Your task to perform on an android device: make emails show in primary in the gmail app Image 0: 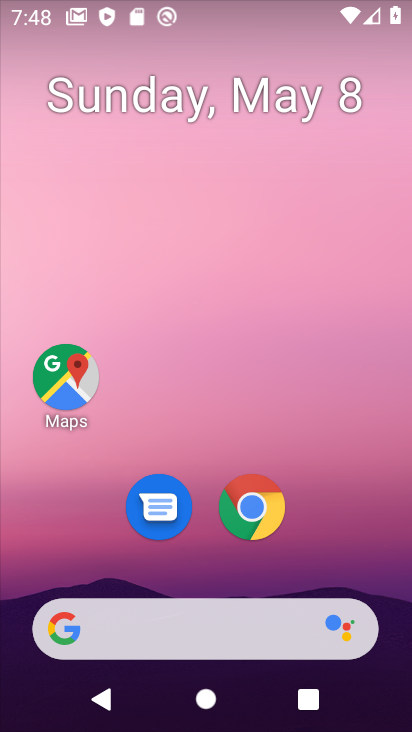
Step 0: drag from (267, 642) to (321, 50)
Your task to perform on an android device: make emails show in primary in the gmail app Image 1: 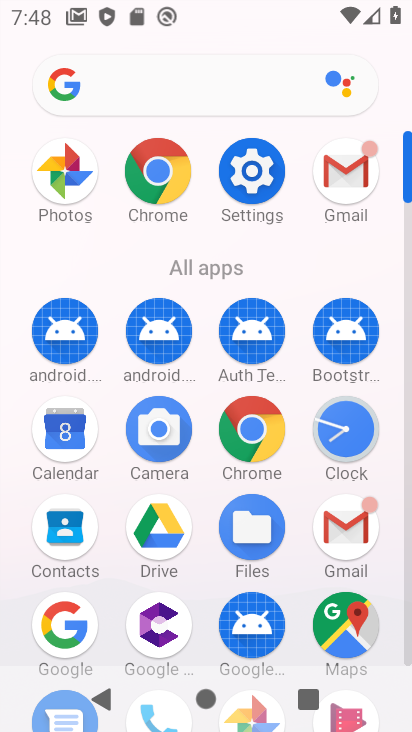
Step 1: click (349, 514)
Your task to perform on an android device: make emails show in primary in the gmail app Image 2: 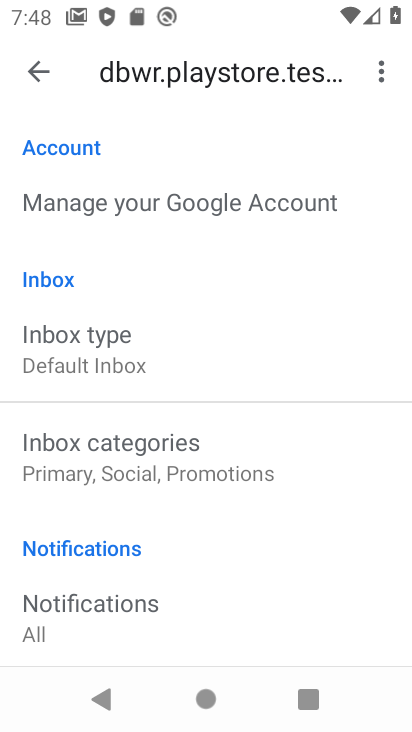
Step 2: click (67, 350)
Your task to perform on an android device: make emails show in primary in the gmail app Image 3: 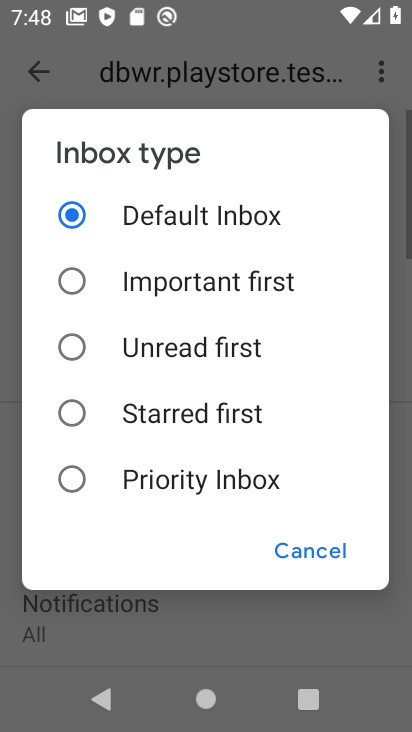
Step 3: click (125, 67)
Your task to perform on an android device: make emails show in primary in the gmail app Image 4: 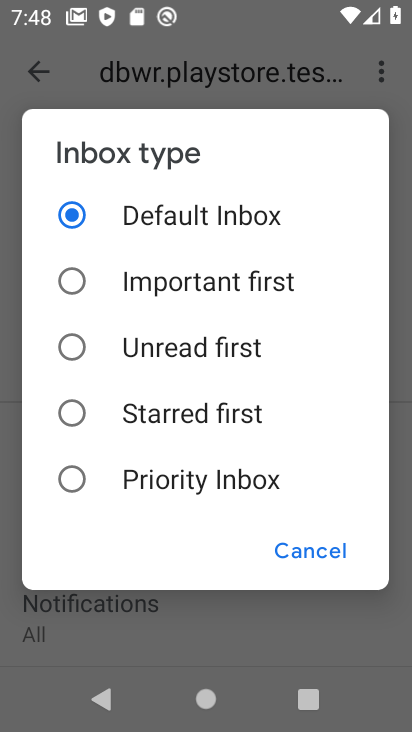
Step 4: click (305, 550)
Your task to perform on an android device: make emails show in primary in the gmail app Image 5: 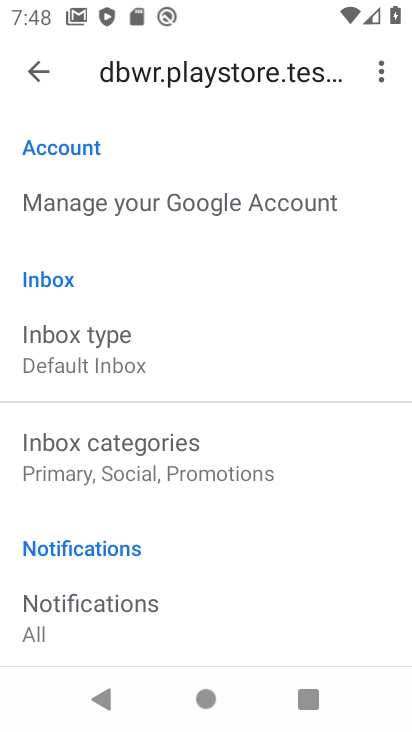
Step 5: click (131, 475)
Your task to perform on an android device: make emails show in primary in the gmail app Image 6: 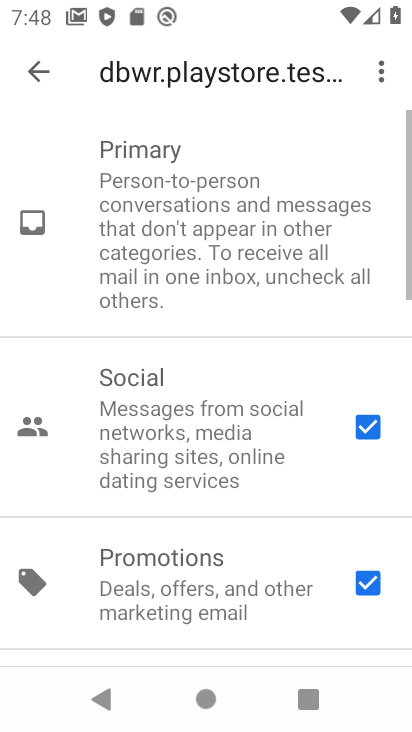
Step 6: click (371, 423)
Your task to perform on an android device: make emails show in primary in the gmail app Image 7: 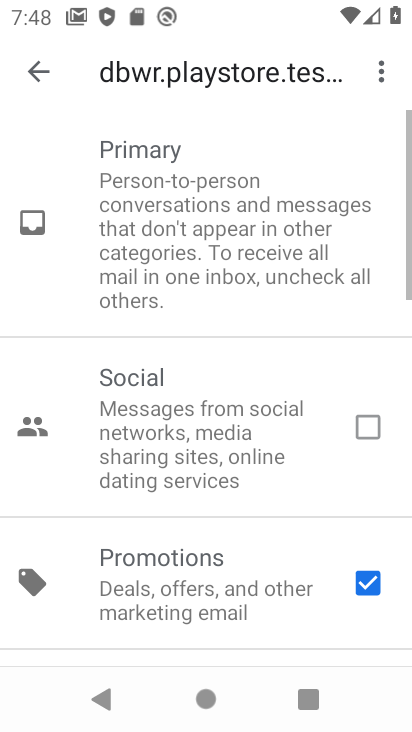
Step 7: click (356, 576)
Your task to perform on an android device: make emails show in primary in the gmail app Image 8: 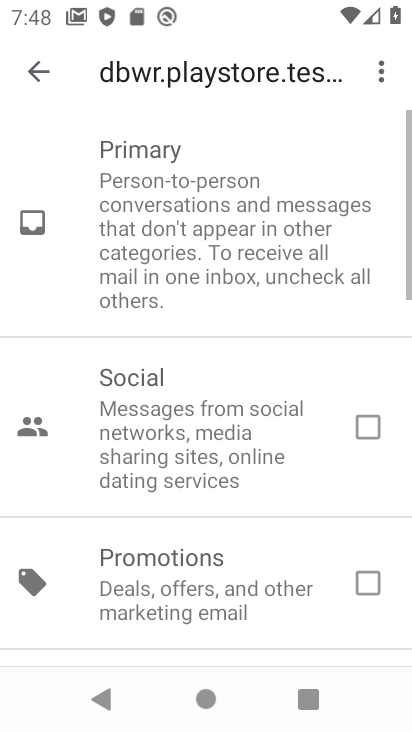
Step 8: task complete